Your task to perform on an android device: toggle priority inbox in the gmail app Image 0: 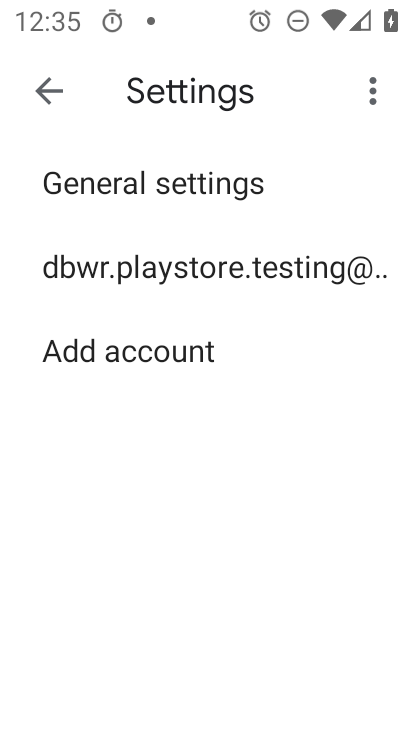
Step 0: press home button
Your task to perform on an android device: toggle priority inbox in the gmail app Image 1: 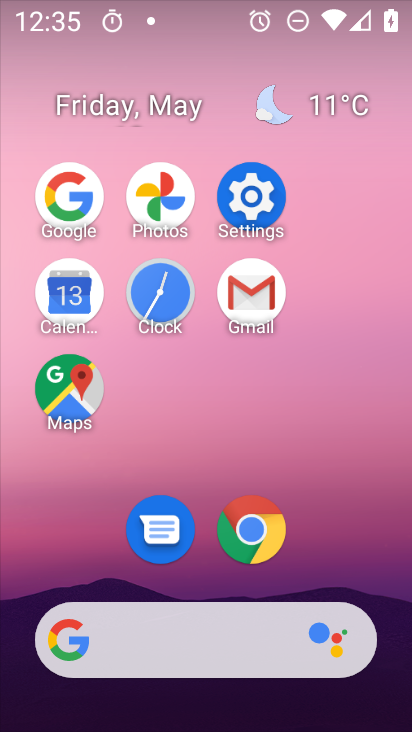
Step 1: click (238, 295)
Your task to perform on an android device: toggle priority inbox in the gmail app Image 2: 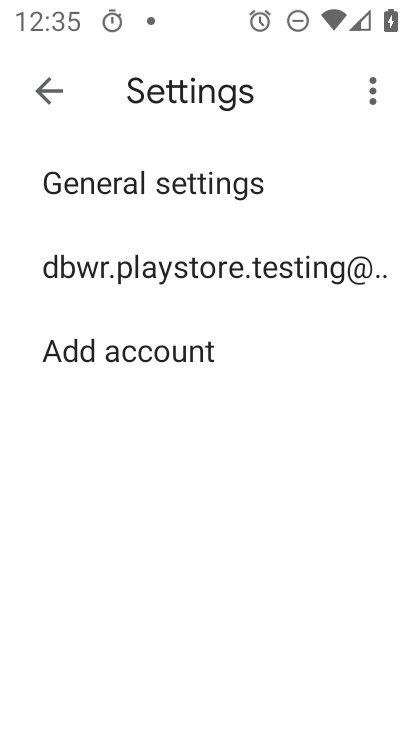
Step 2: click (160, 248)
Your task to perform on an android device: toggle priority inbox in the gmail app Image 3: 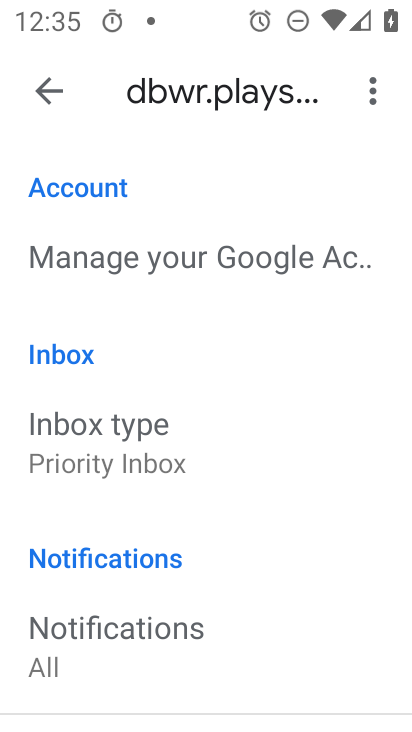
Step 3: click (148, 417)
Your task to perform on an android device: toggle priority inbox in the gmail app Image 4: 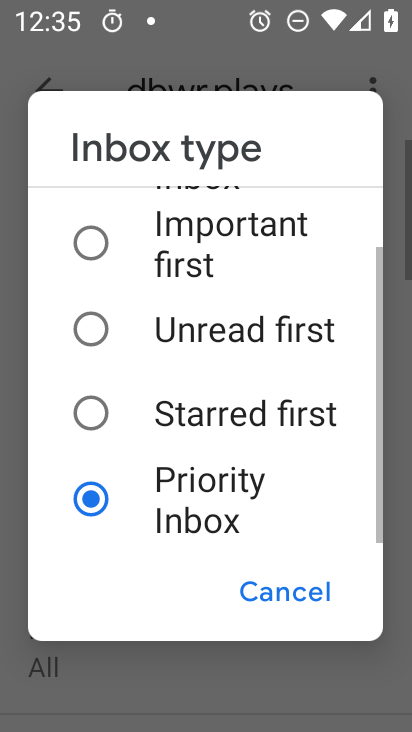
Step 4: click (154, 243)
Your task to perform on an android device: toggle priority inbox in the gmail app Image 5: 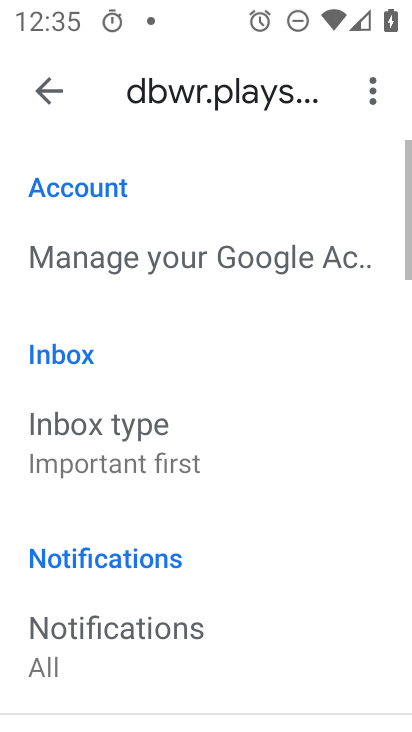
Step 5: task complete